Your task to perform on an android device: Go to network settings Image 0: 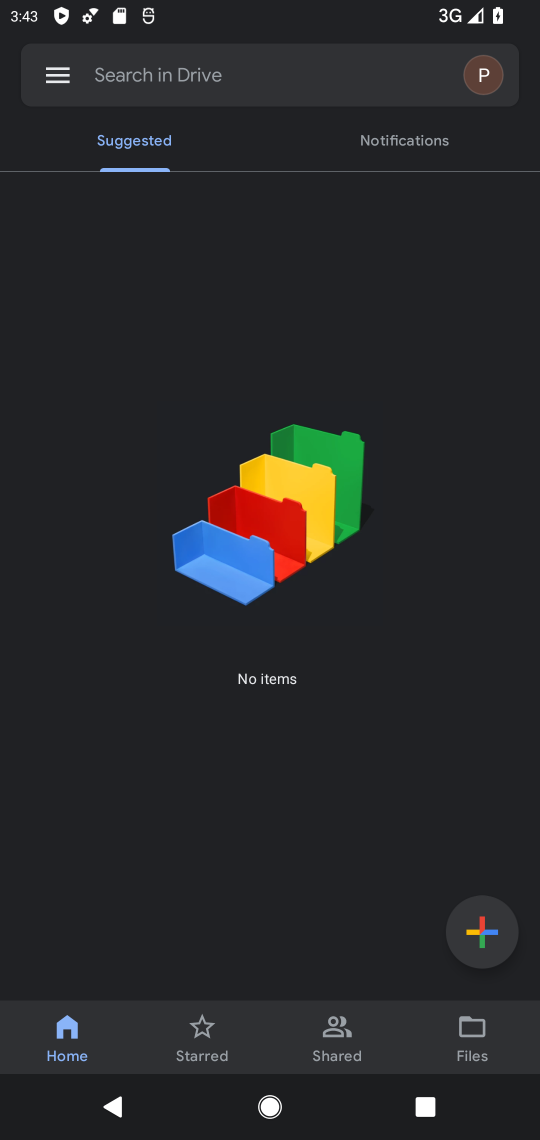
Step 0: press home button
Your task to perform on an android device: Go to network settings Image 1: 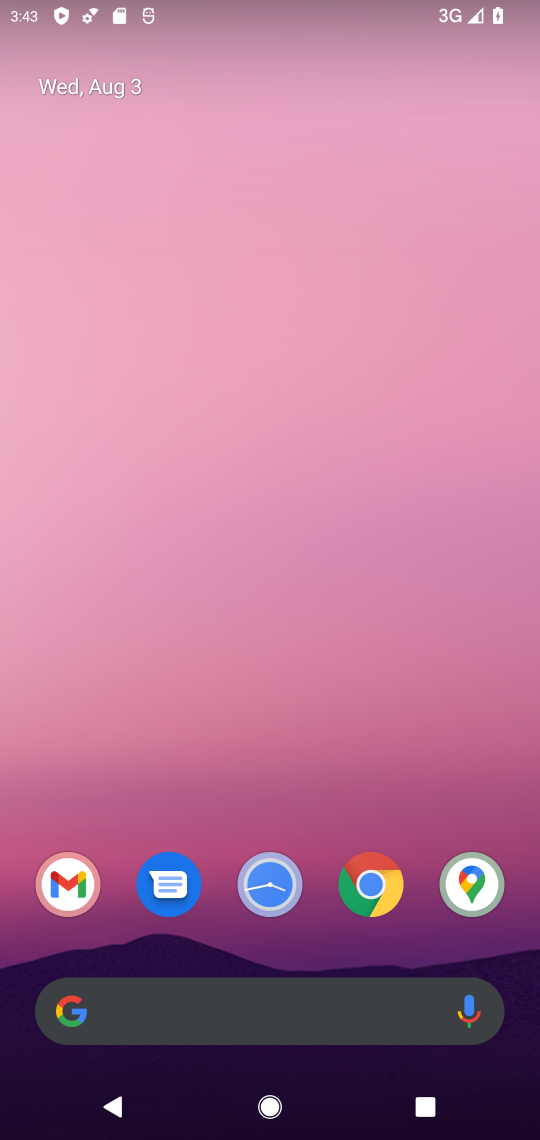
Step 1: drag from (287, 954) to (310, 64)
Your task to perform on an android device: Go to network settings Image 2: 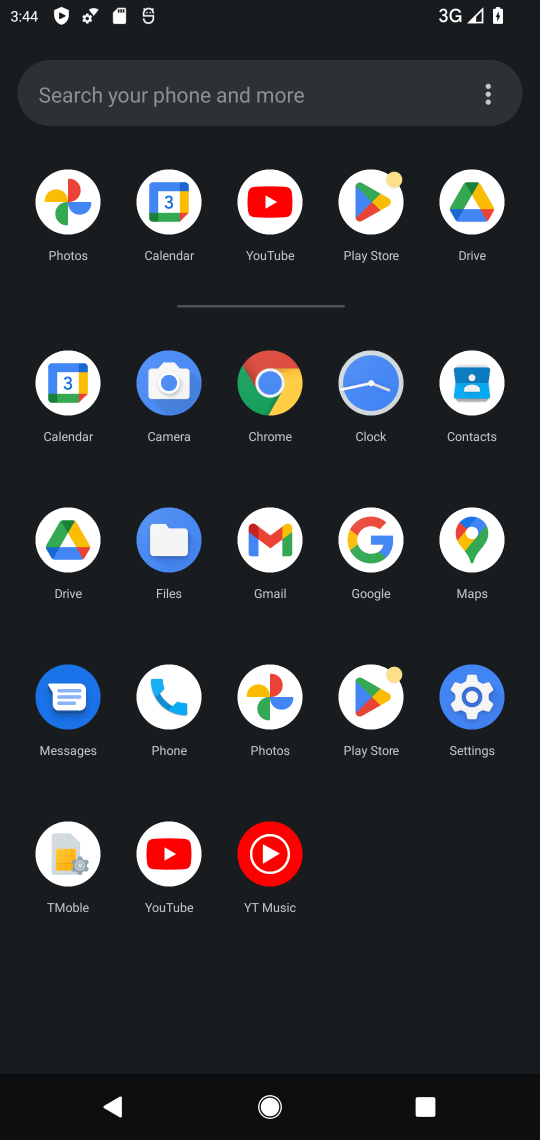
Step 2: click (477, 717)
Your task to perform on an android device: Go to network settings Image 3: 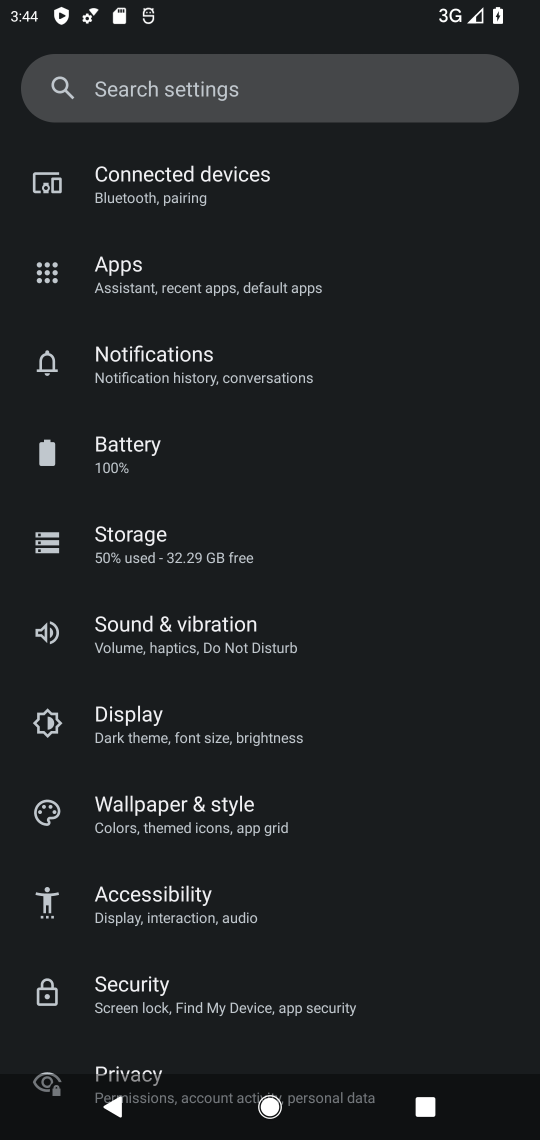
Step 3: drag from (236, 212) to (273, 895)
Your task to perform on an android device: Go to network settings Image 4: 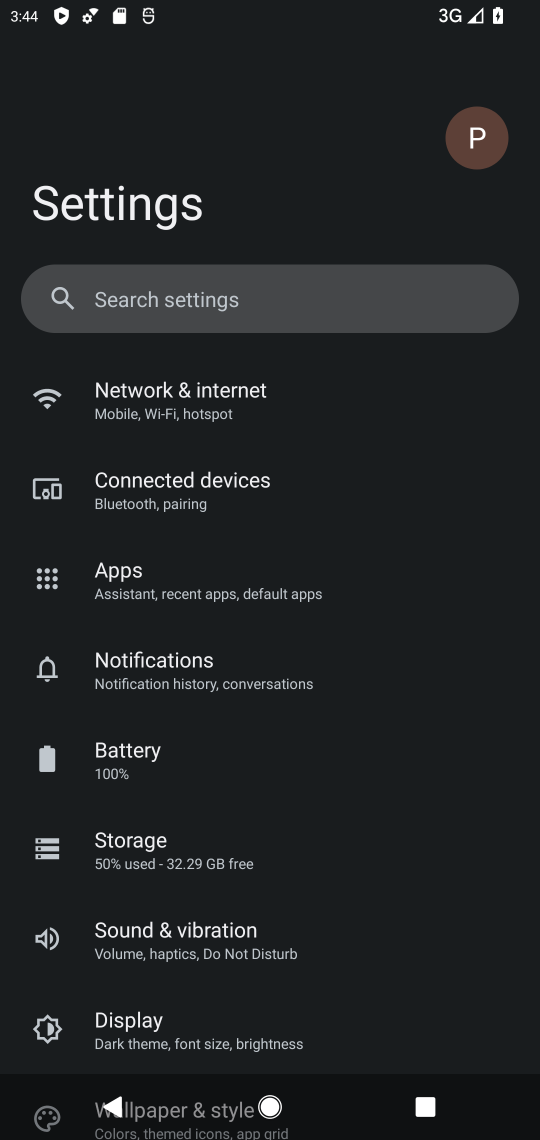
Step 4: click (209, 414)
Your task to perform on an android device: Go to network settings Image 5: 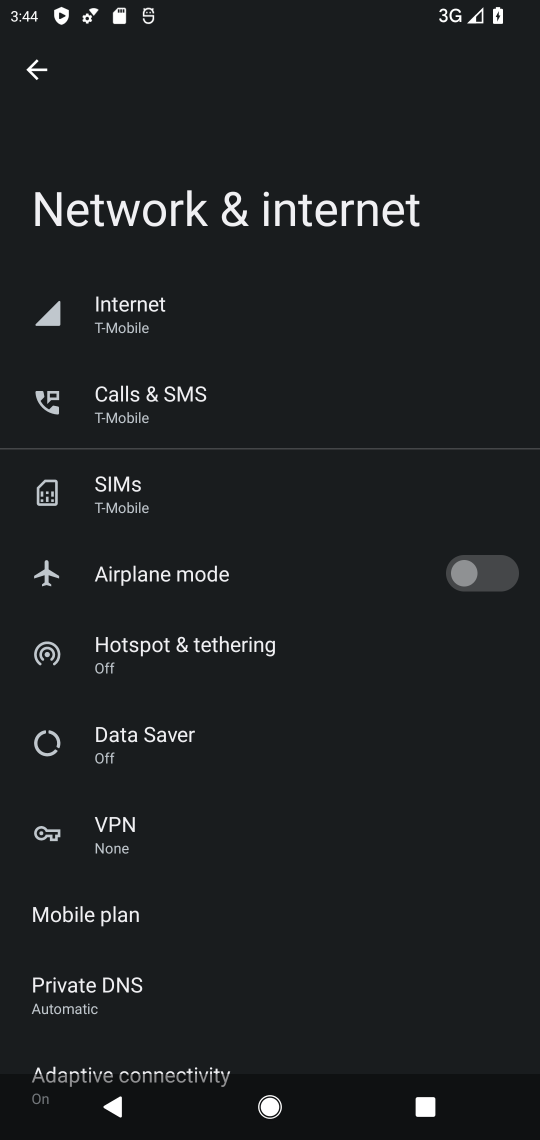
Step 5: task complete